Your task to perform on an android device: Open the calendar app, open the side menu, and click the "Day" option Image 0: 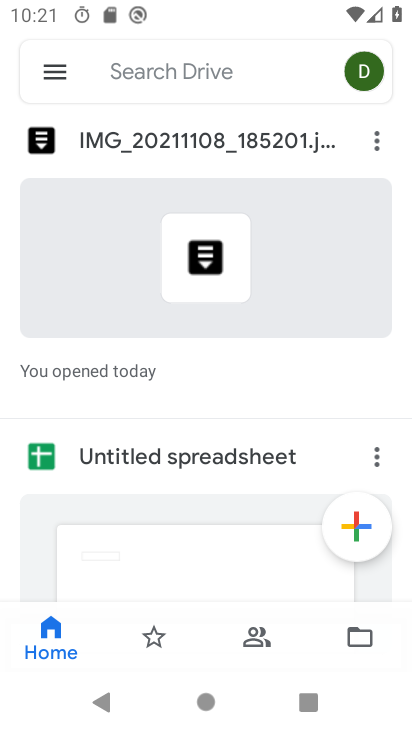
Step 0: click (407, 603)
Your task to perform on an android device: Open the calendar app, open the side menu, and click the "Day" option Image 1: 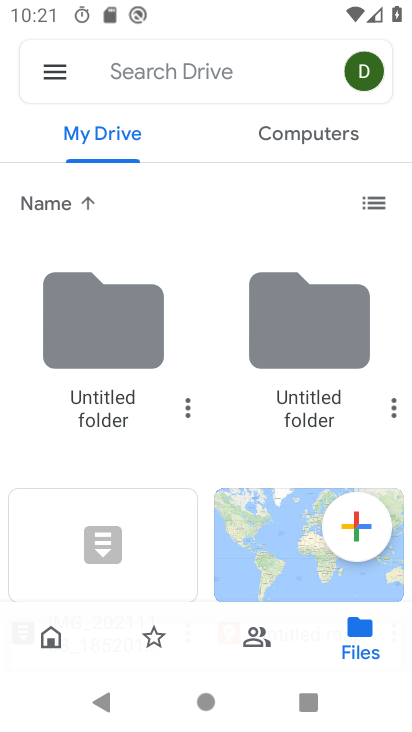
Step 1: press home button
Your task to perform on an android device: Open the calendar app, open the side menu, and click the "Day" option Image 2: 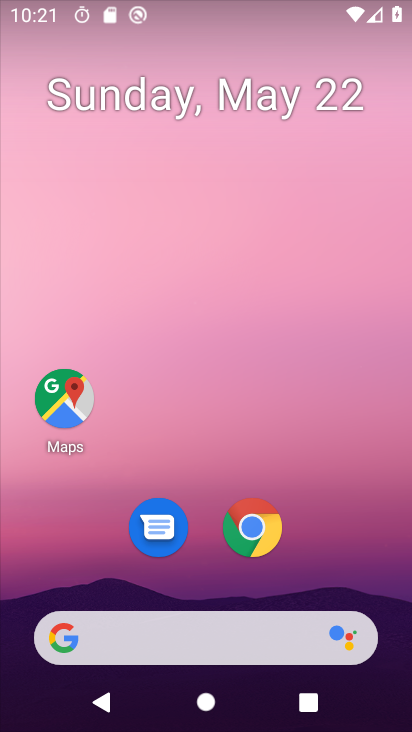
Step 2: drag from (233, 582) to (254, 70)
Your task to perform on an android device: Open the calendar app, open the side menu, and click the "Day" option Image 3: 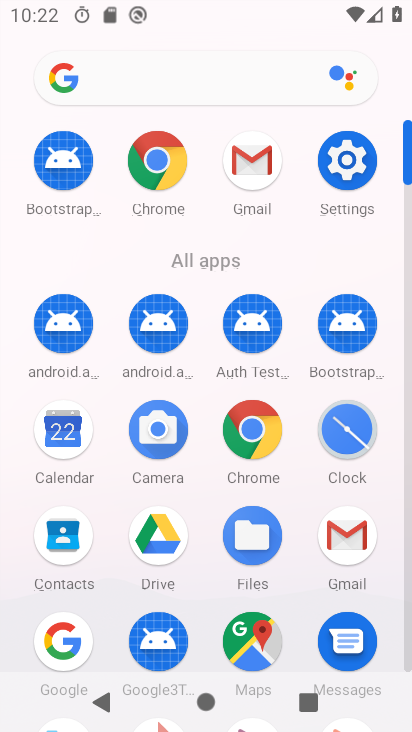
Step 3: click (68, 445)
Your task to perform on an android device: Open the calendar app, open the side menu, and click the "Day" option Image 4: 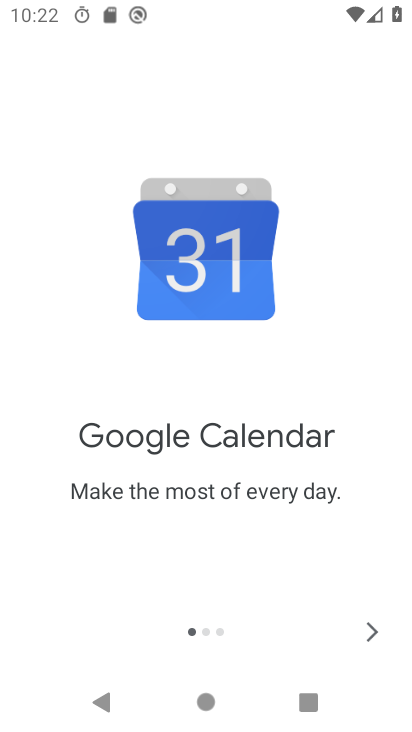
Step 4: click (365, 634)
Your task to perform on an android device: Open the calendar app, open the side menu, and click the "Day" option Image 5: 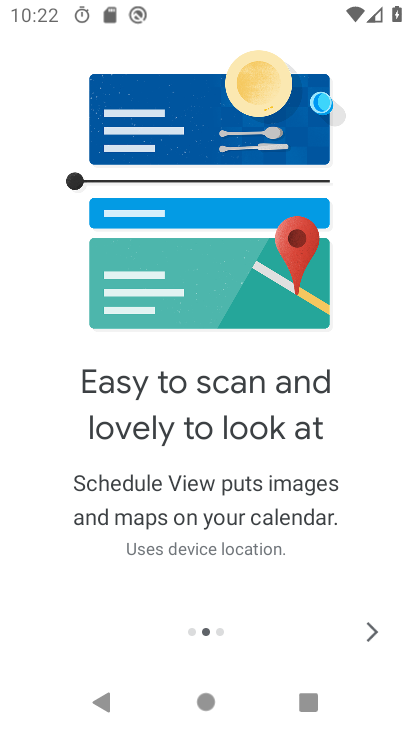
Step 5: click (369, 637)
Your task to perform on an android device: Open the calendar app, open the side menu, and click the "Day" option Image 6: 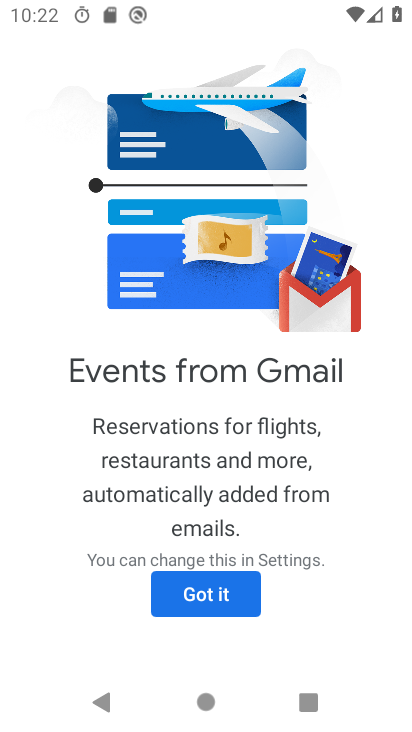
Step 6: click (199, 588)
Your task to perform on an android device: Open the calendar app, open the side menu, and click the "Day" option Image 7: 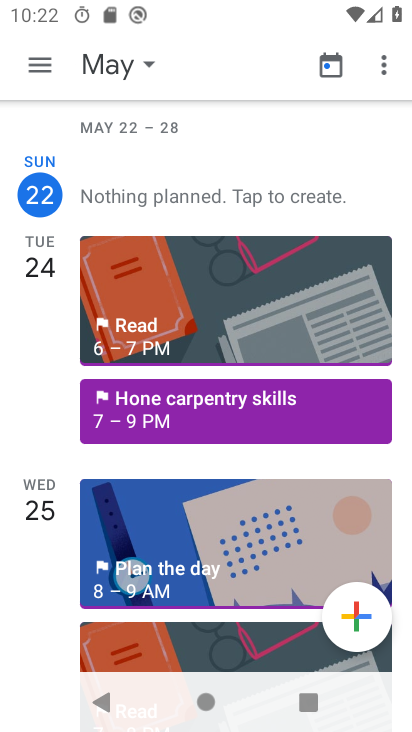
Step 7: click (42, 60)
Your task to perform on an android device: Open the calendar app, open the side menu, and click the "Day" option Image 8: 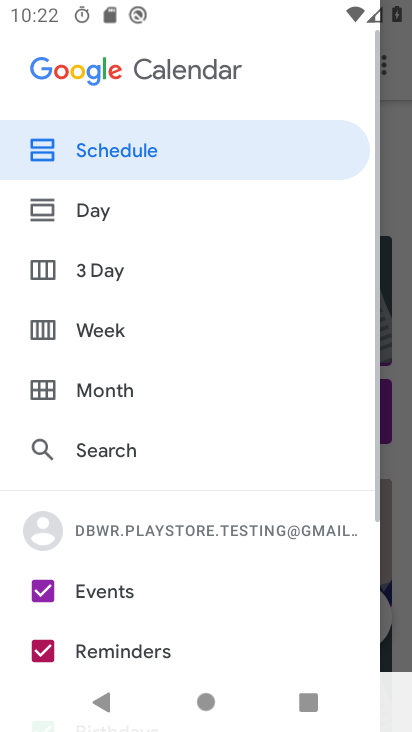
Step 8: click (168, 207)
Your task to perform on an android device: Open the calendar app, open the side menu, and click the "Day" option Image 9: 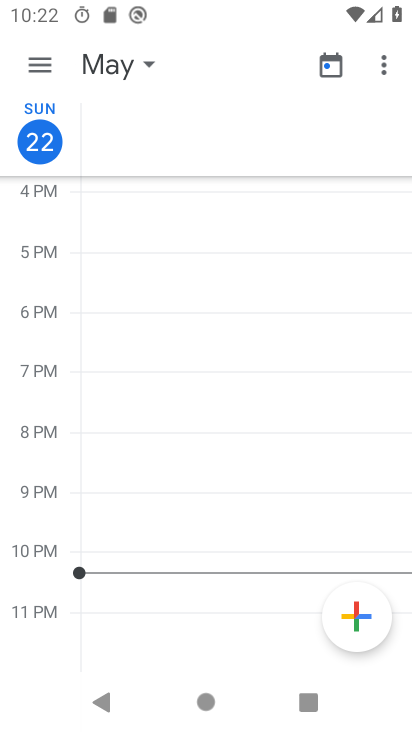
Step 9: task complete